Your task to perform on an android device: What's the weather going to be this weekend? Image 0: 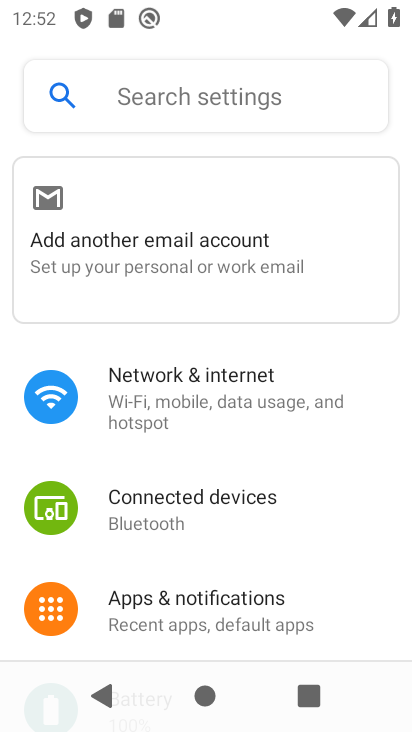
Step 0: press home button
Your task to perform on an android device: What's the weather going to be this weekend? Image 1: 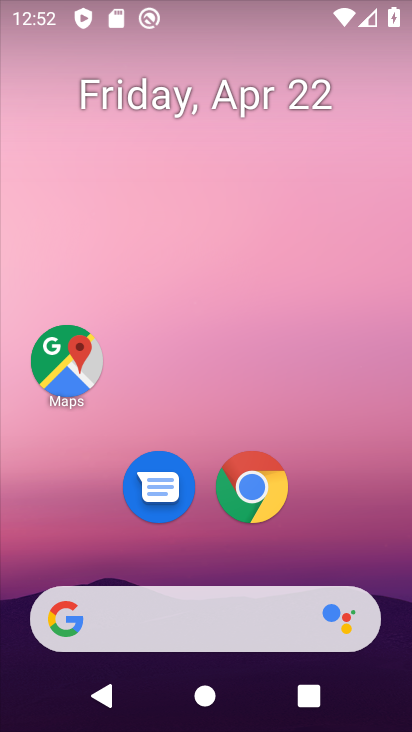
Step 1: drag from (205, 411) to (205, 134)
Your task to perform on an android device: What's the weather going to be this weekend? Image 2: 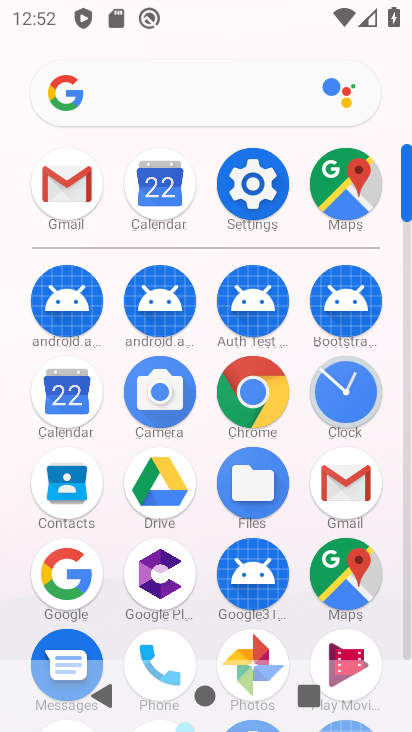
Step 2: click (80, 569)
Your task to perform on an android device: What's the weather going to be this weekend? Image 3: 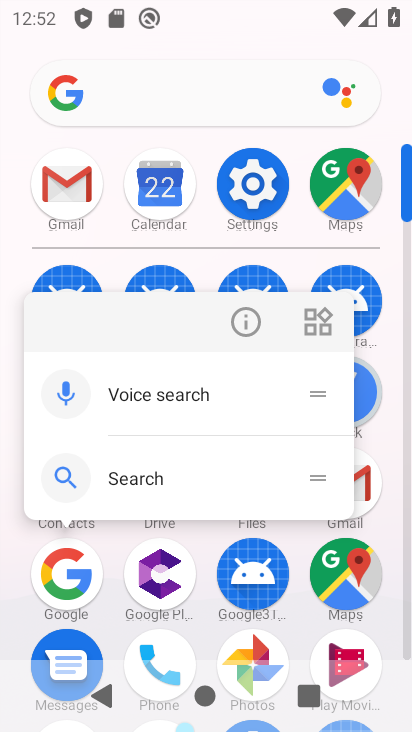
Step 3: click (65, 580)
Your task to perform on an android device: What's the weather going to be this weekend? Image 4: 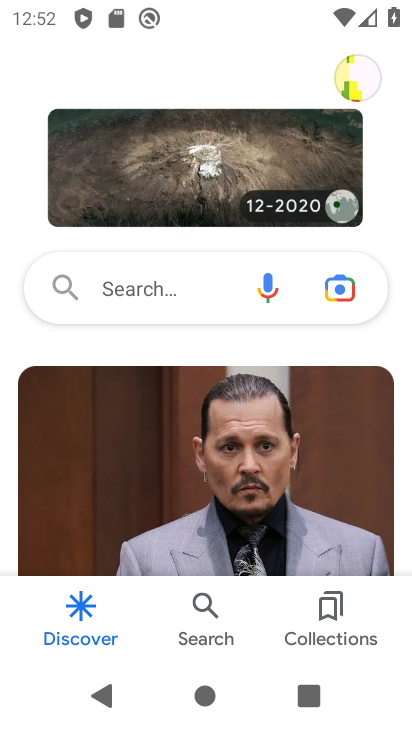
Step 4: click (168, 274)
Your task to perform on an android device: What's the weather going to be this weekend? Image 5: 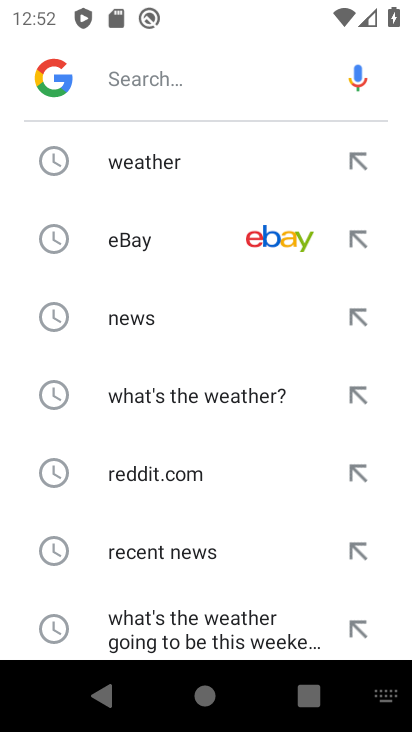
Step 5: click (161, 164)
Your task to perform on an android device: What's the weather going to be this weekend? Image 6: 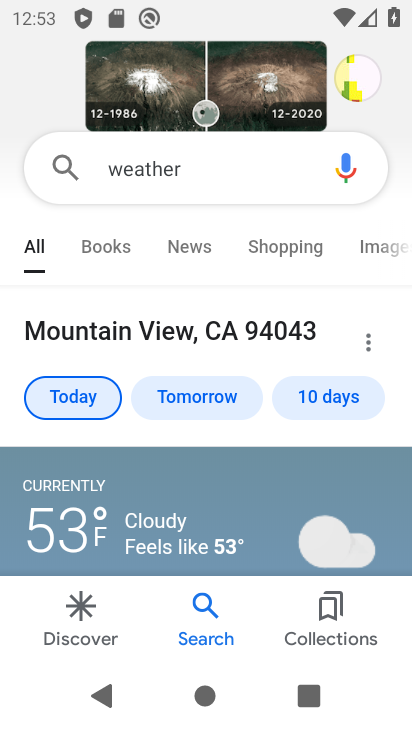
Step 6: click (301, 396)
Your task to perform on an android device: What's the weather going to be this weekend? Image 7: 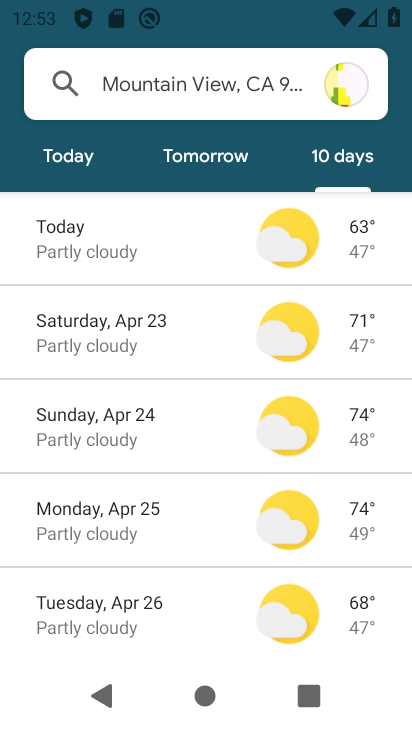
Step 7: click (130, 338)
Your task to perform on an android device: What's the weather going to be this weekend? Image 8: 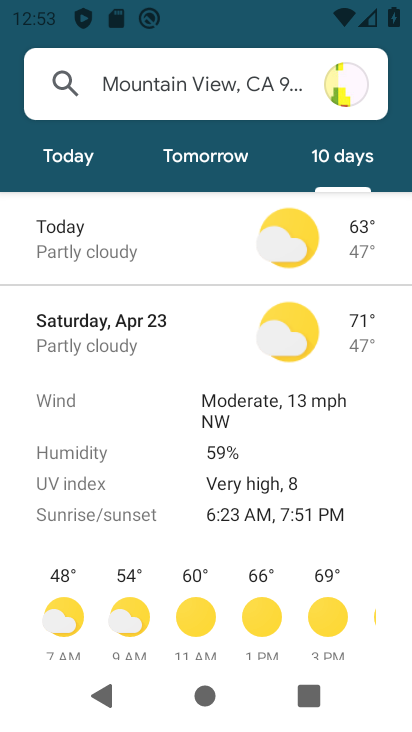
Step 8: task complete